Your task to perform on an android device: change the clock display to show seconds Image 0: 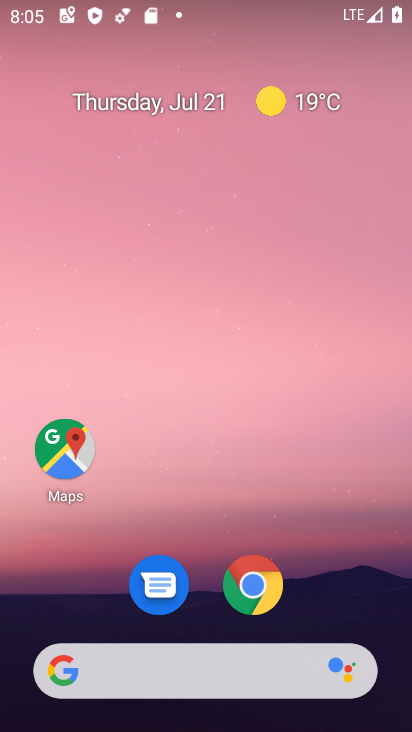
Step 0: drag from (316, 602) to (307, 166)
Your task to perform on an android device: change the clock display to show seconds Image 1: 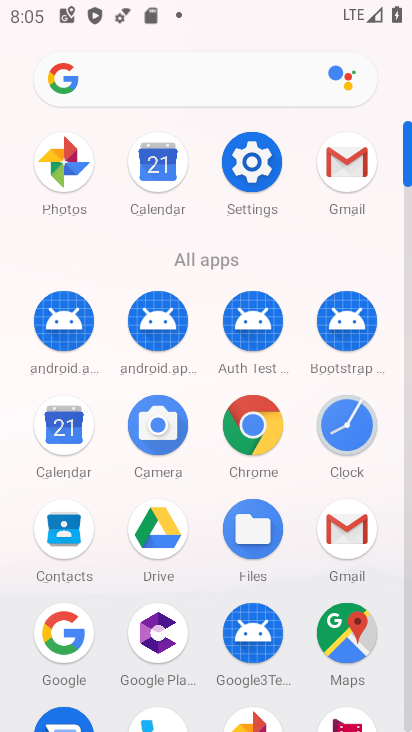
Step 1: click (339, 426)
Your task to perform on an android device: change the clock display to show seconds Image 2: 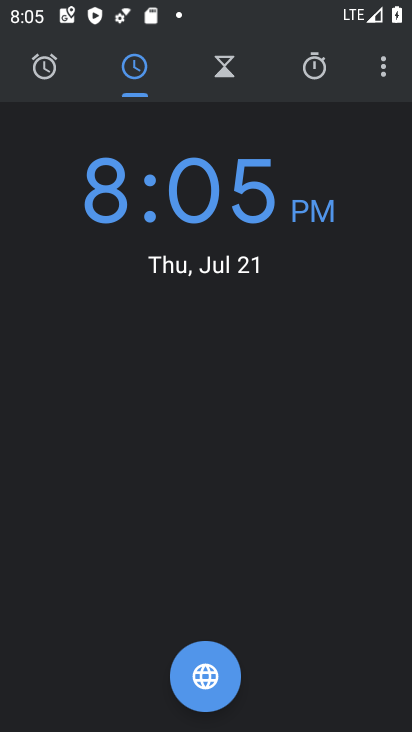
Step 2: click (378, 74)
Your task to perform on an android device: change the clock display to show seconds Image 3: 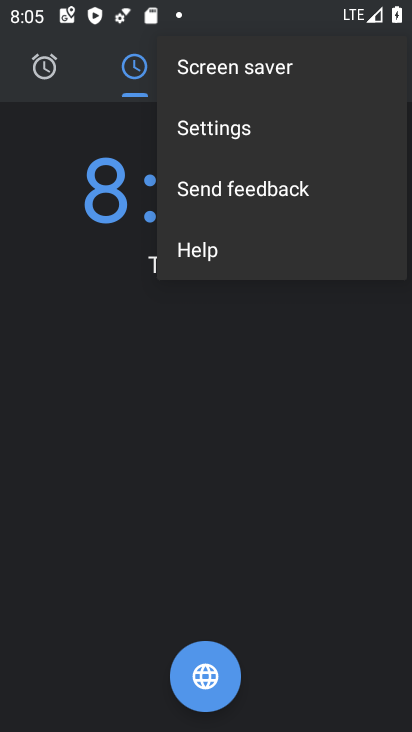
Step 3: click (259, 133)
Your task to perform on an android device: change the clock display to show seconds Image 4: 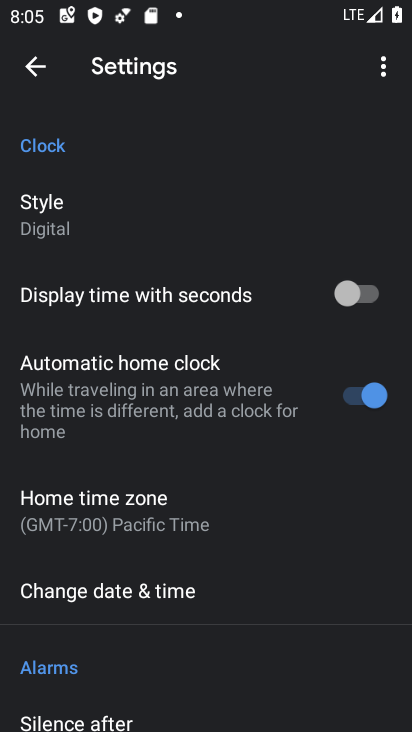
Step 4: click (370, 294)
Your task to perform on an android device: change the clock display to show seconds Image 5: 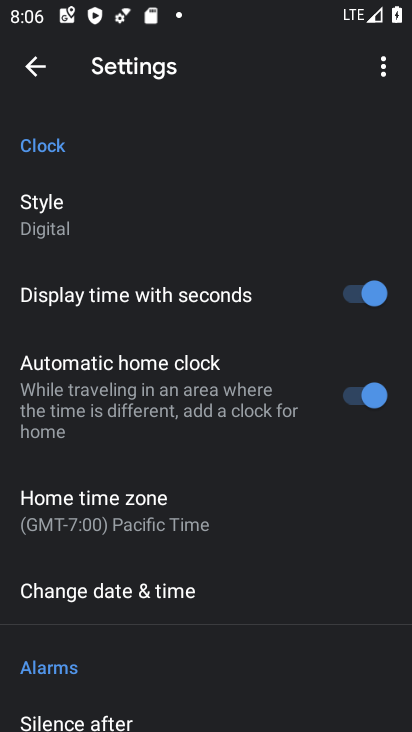
Step 5: click (42, 70)
Your task to perform on an android device: change the clock display to show seconds Image 6: 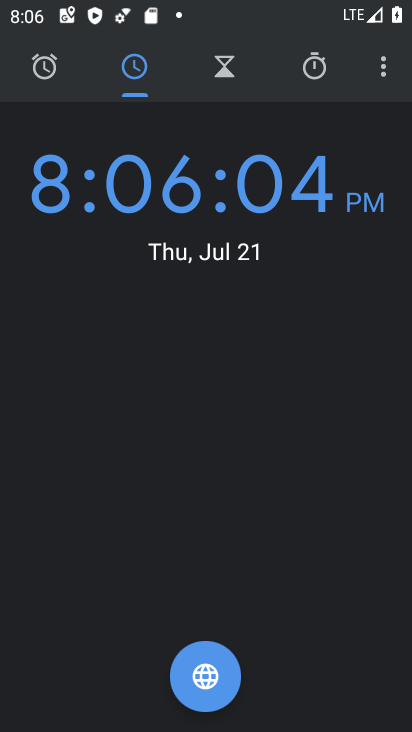
Step 6: task complete